Your task to perform on an android device: Do I have any events tomorrow? Image 0: 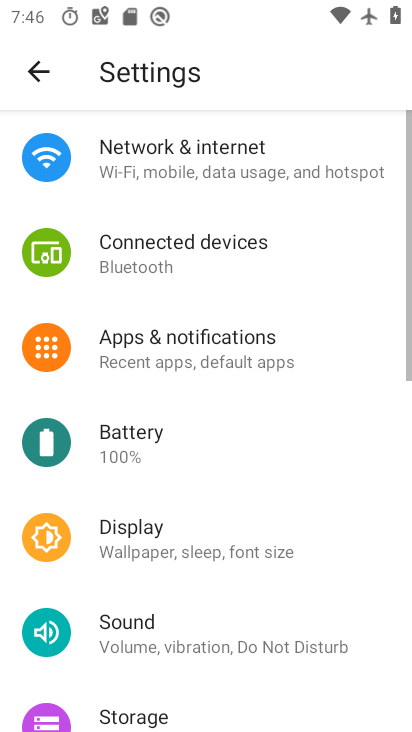
Step 0: drag from (322, 602) to (340, 164)
Your task to perform on an android device: Do I have any events tomorrow? Image 1: 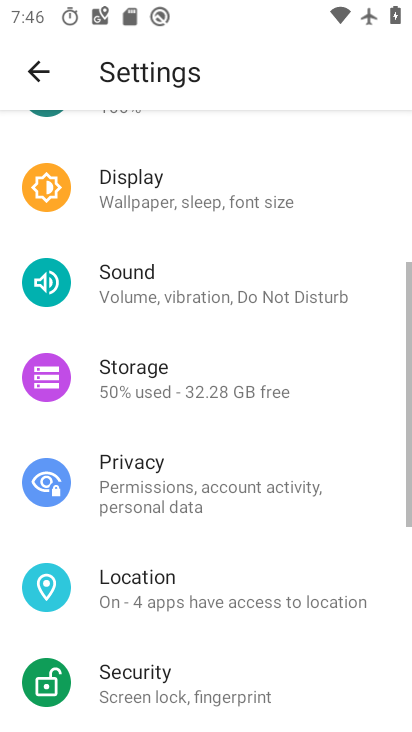
Step 1: press home button
Your task to perform on an android device: Do I have any events tomorrow? Image 2: 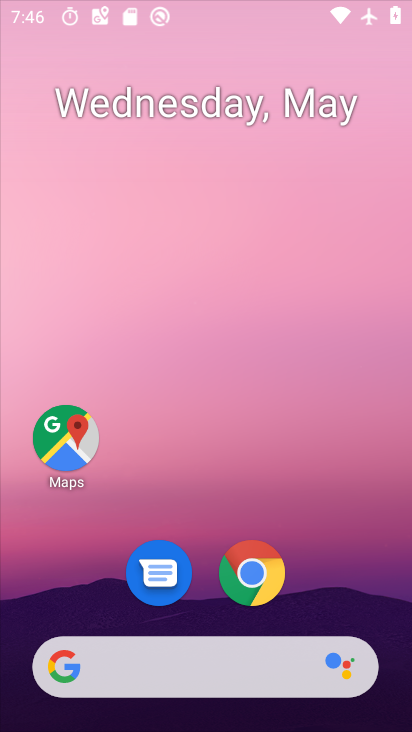
Step 2: drag from (296, 646) to (304, 0)
Your task to perform on an android device: Do I have any events tomorrow? Image 3: 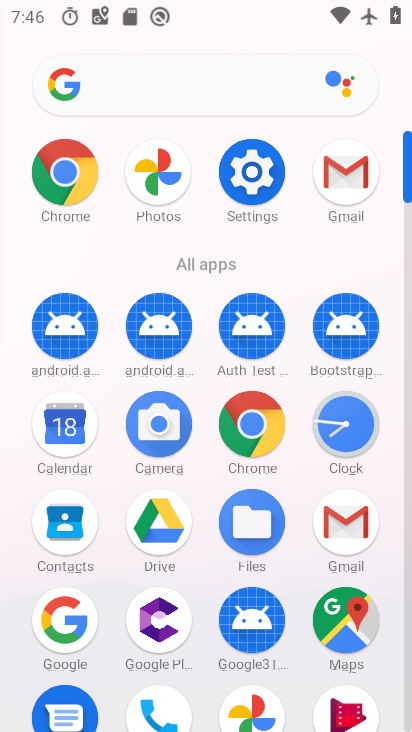
Step 3: click (49, 423)
Your task to perform on an android device: Do I have any events tomorrow? Image 4: 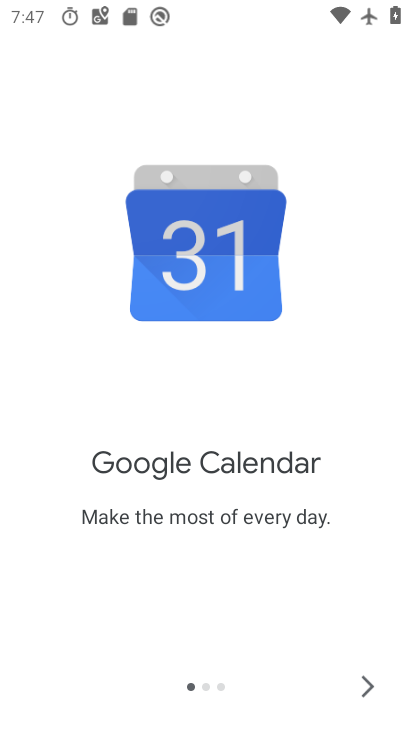
Step 4: click (367, 686)
Your task to perform on an android device: Do I have any events tomorrow? Image 5: 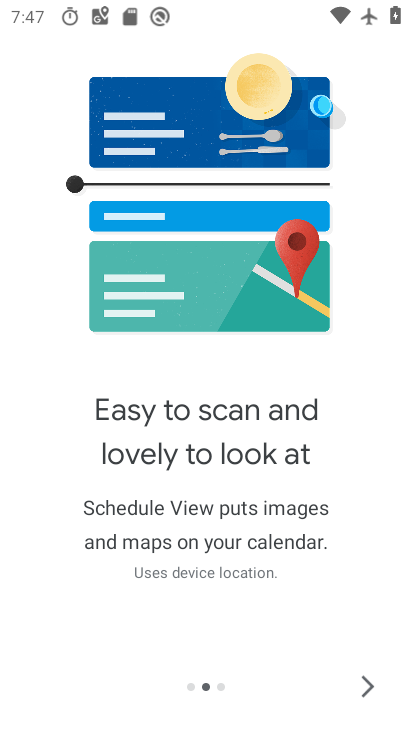
Step 5: click (367, 686)
Your task to perform on an android device: Do I have any events tomorrow? Image 6: 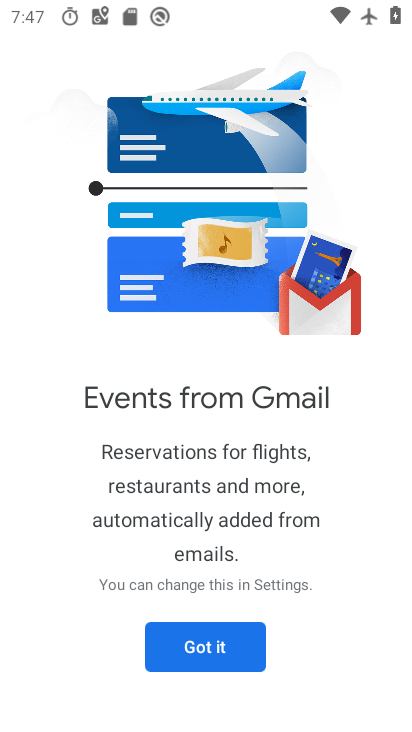
Step 6: click (168, 639)
Your task to perform on an android device: Do I have any events tomorrow? Image 7: 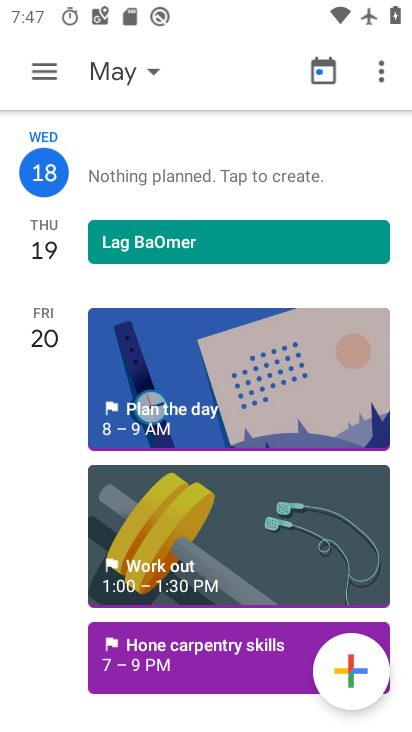
Step 7: click (119, 75)
Your task to perform on an android device: Do I have any events tomorrow? Image 8: 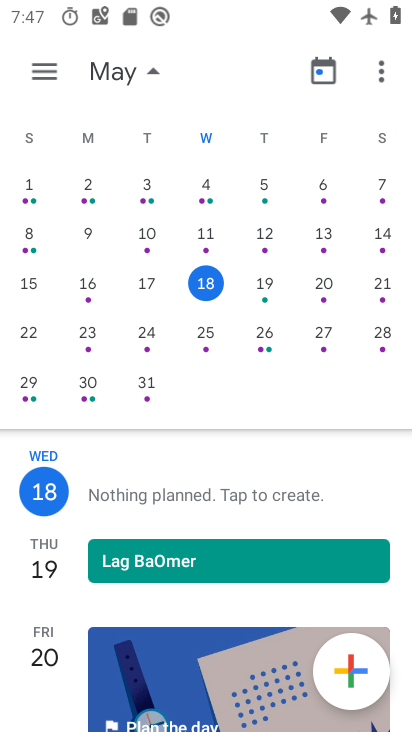
Step 8: click (264, 292)
Your task to perform on an android device: Do I have any events tomorrow? Image 9: 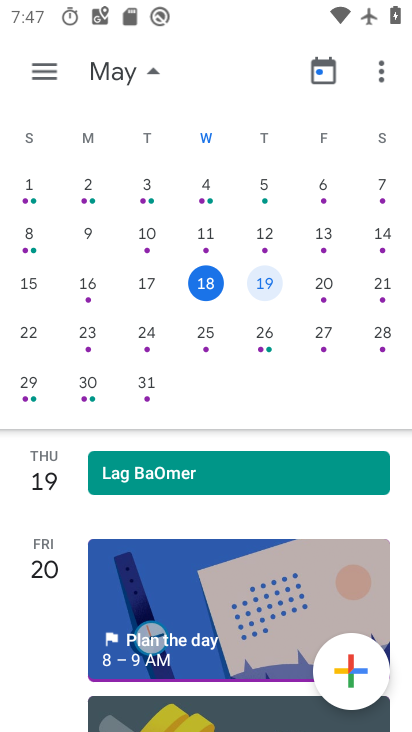
Step 9: task complete